Your task to perform on an android device: Open Yahoo.com Image 0: 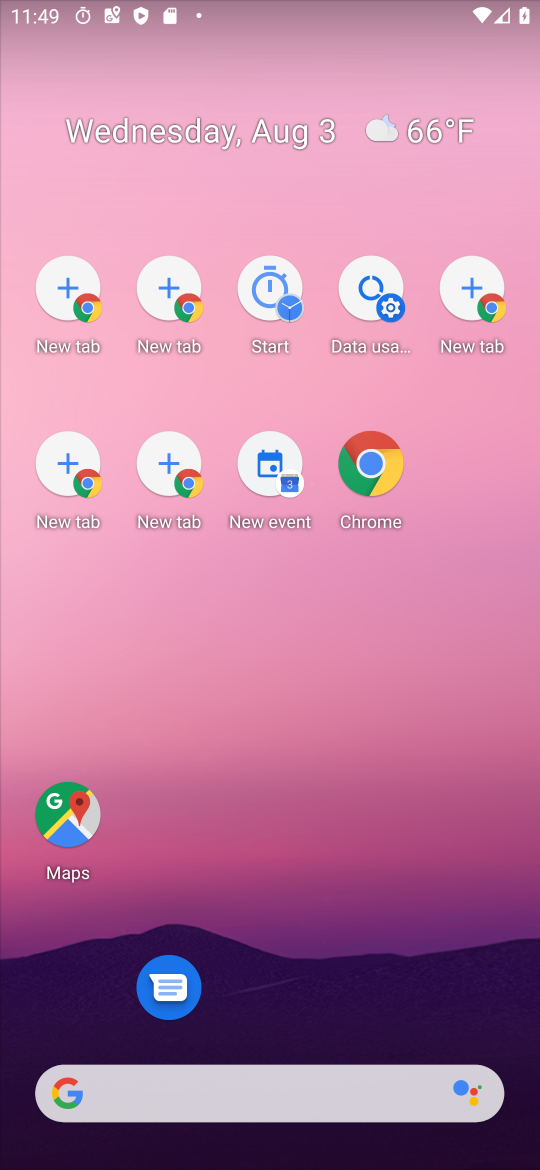
Step 0: drag from (288, 919) to (258, 119)
Your task to perform on an android device: Open Yahoo.com Image 1: 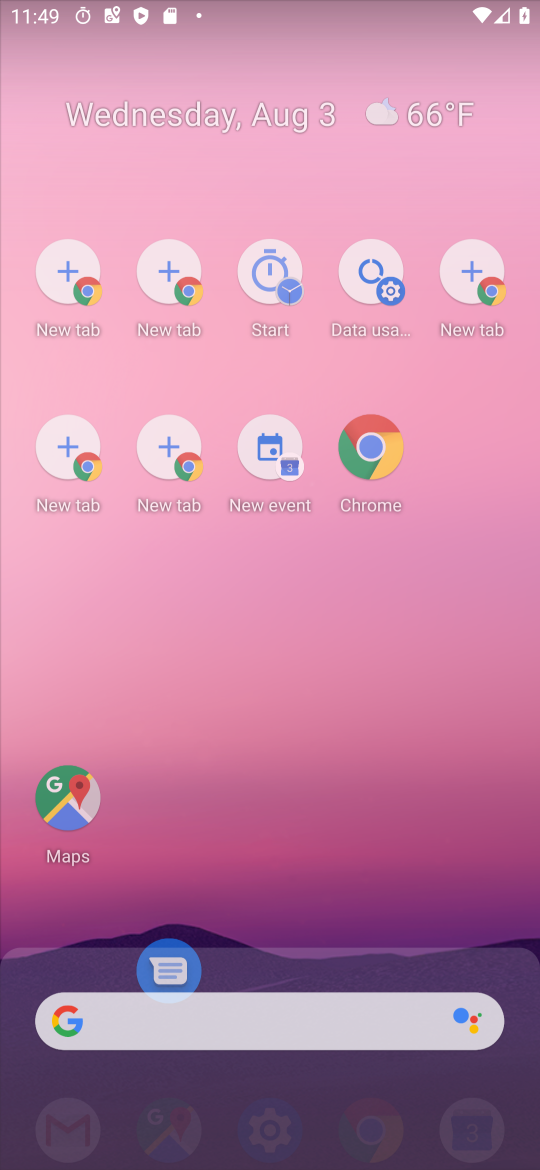
Step 1: click (329, 204)
Your task to perform on an android device: Open Yahoo.com Image 2: 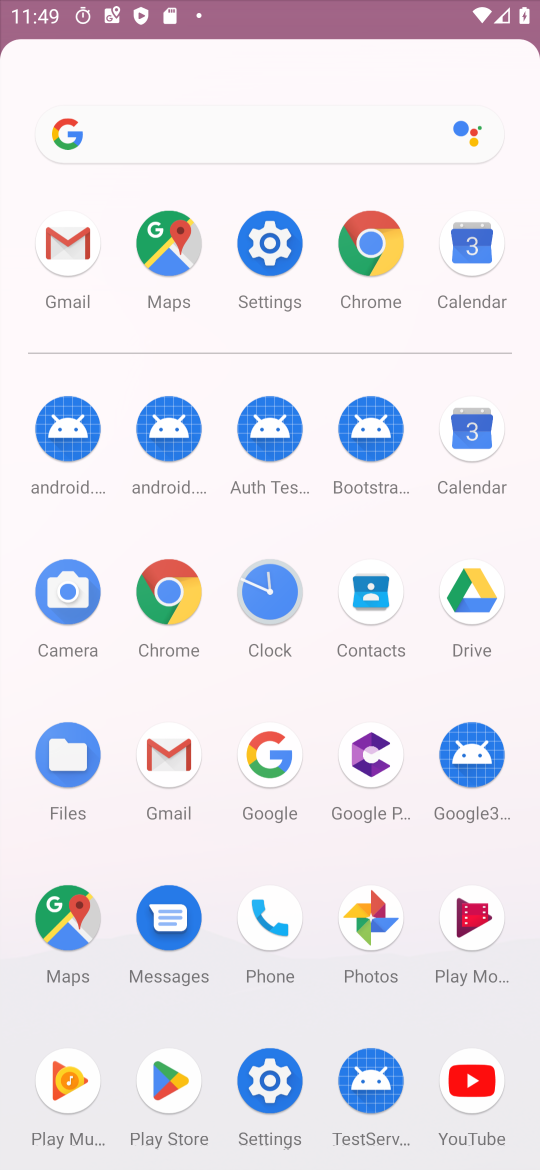
Step 2: drag from (176, 771) to (149, 23)
Your task to perform on an android device: Open Yahoo.com Image 3: 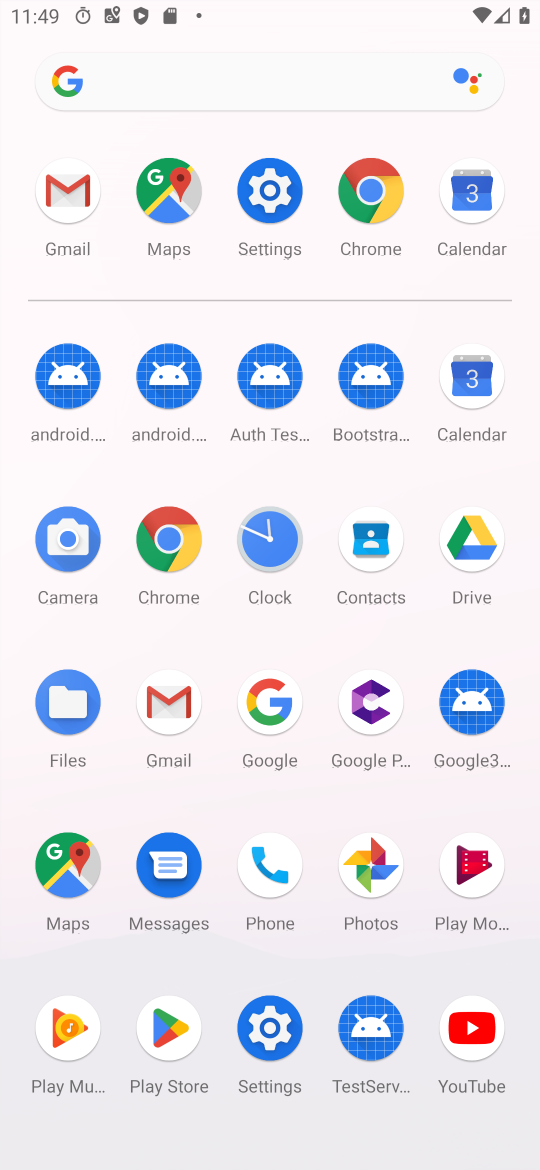
Step 3: click (183, 437)
Your task to perform on an android device: Open Yahoo.com Image 4: 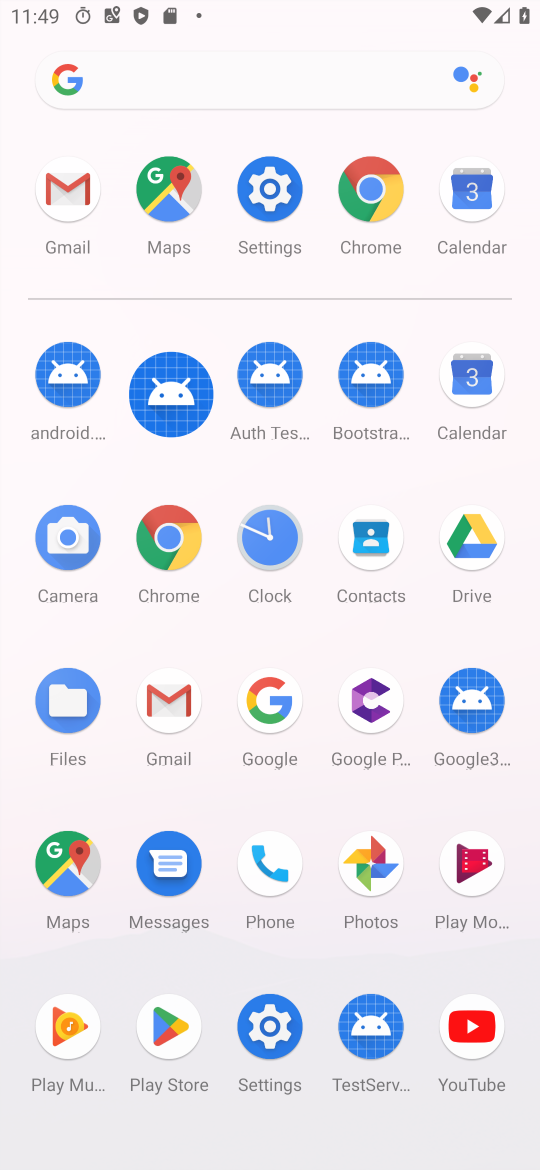
Step 4: click (384, 198)
Your task to perform on an android device: Open Yahoo.com Image 5: 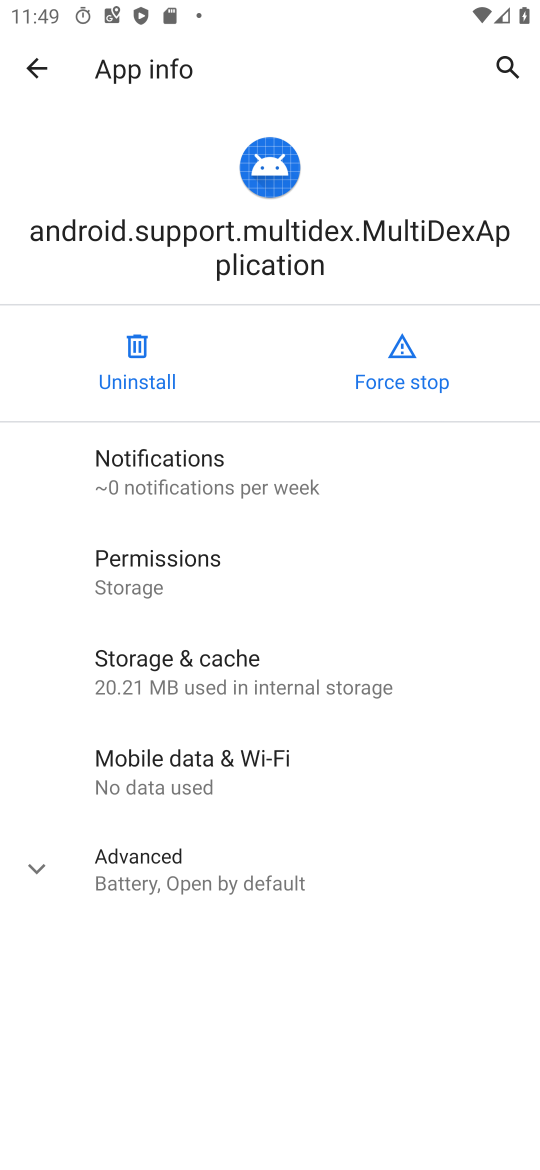
Step 5: click (383, 196)
Your task to perform on an android device: Open Yahoo.com Image 6: 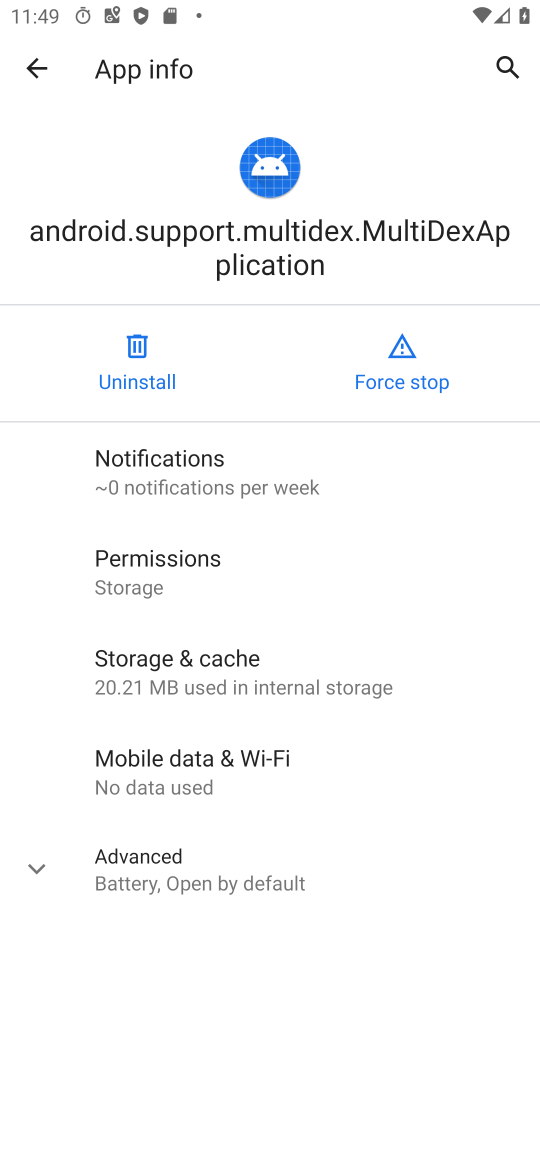
Step 6: click (383, 196)
Your task to perform on an android device: Open Yahoo.com Image 7: 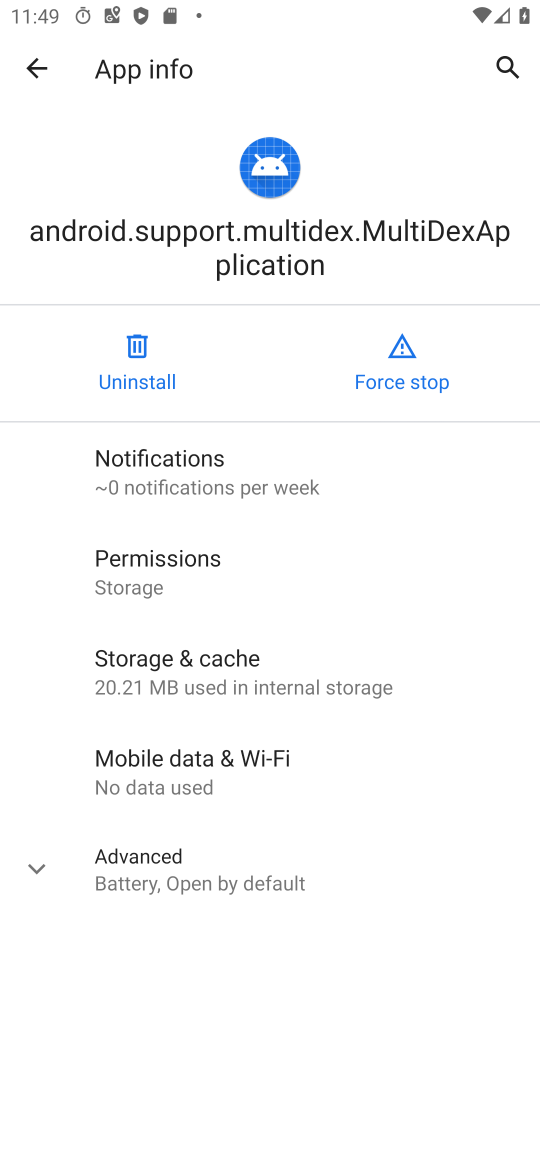
Step 7: click (28, 63)
Your task to perform on an android device: Open Yahoo.com Image 8: 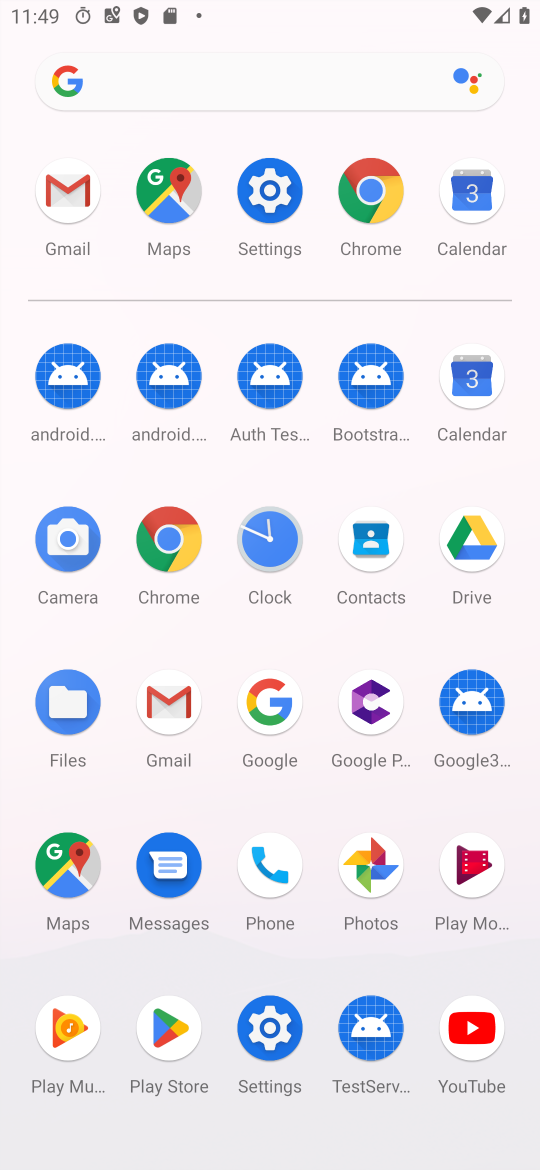
Step 8: click (352, 193)
Your task to perform on an android device: Open Yahoo.com Image 9: 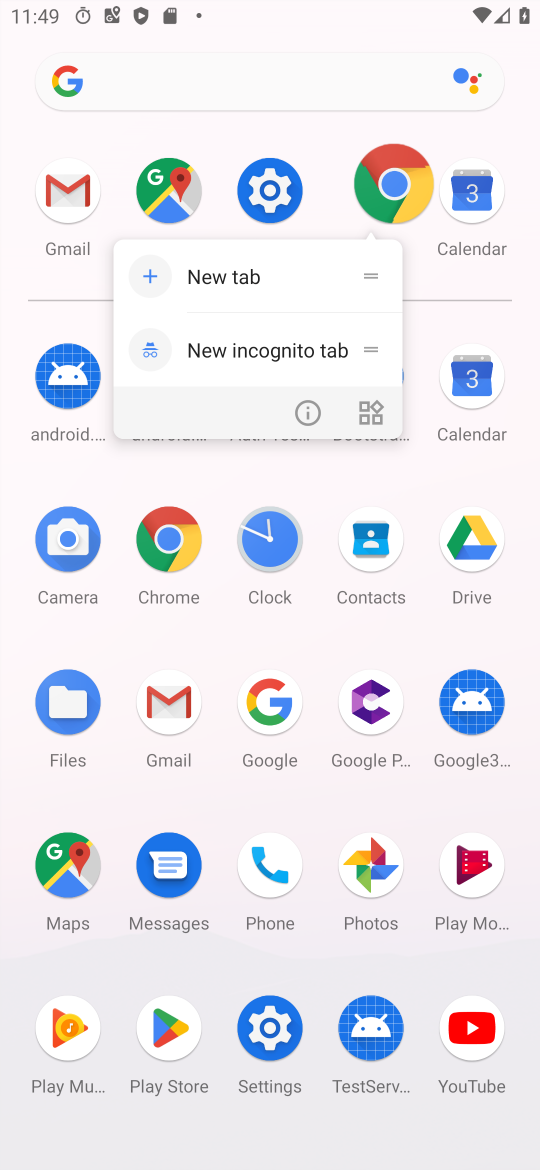
Step 9: click (368, 191)
Your task to perform on an android device: Open Yahoo.com Image 10: 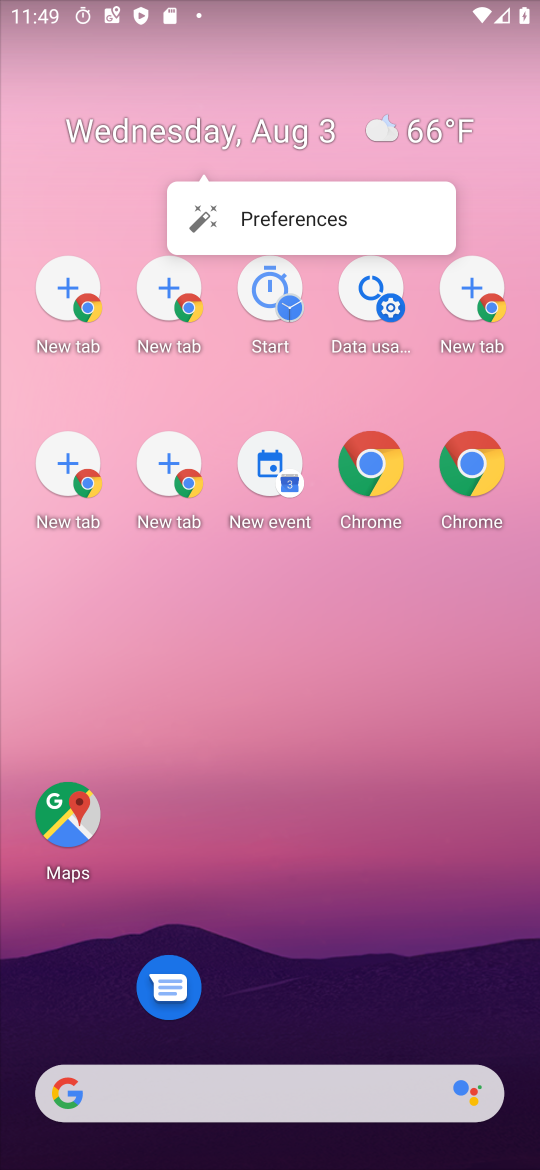
Step 10: drag from (417, 746) to (244, 12)
Your task to perform on an android device: Open Yahoo.com Image 11: 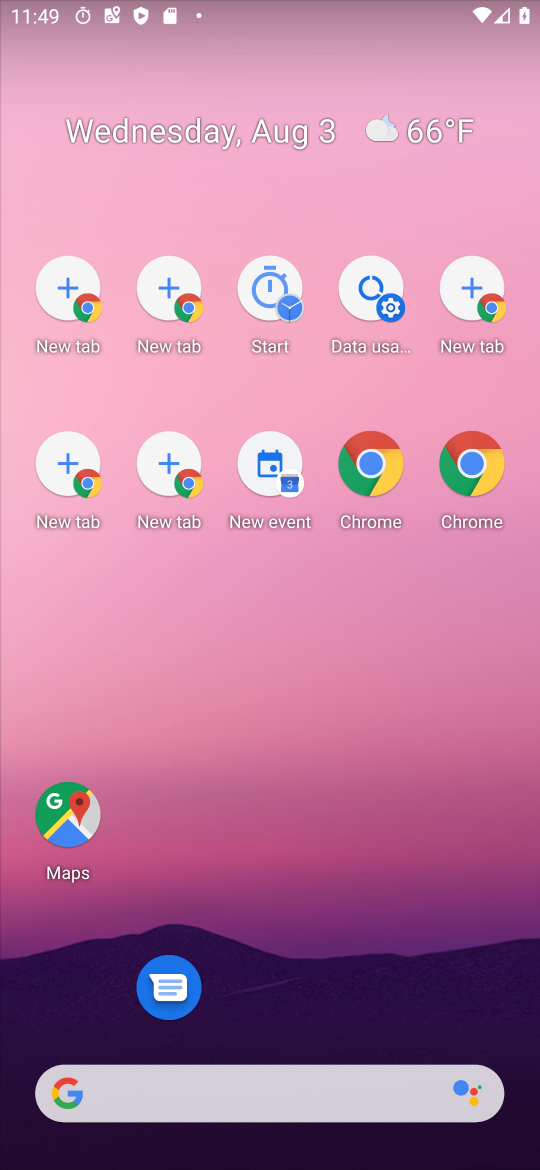
Step 11: drag from (367, 830) to (338, 192)
Your task to perform on an android device: Open Yahoo.com Image 12: 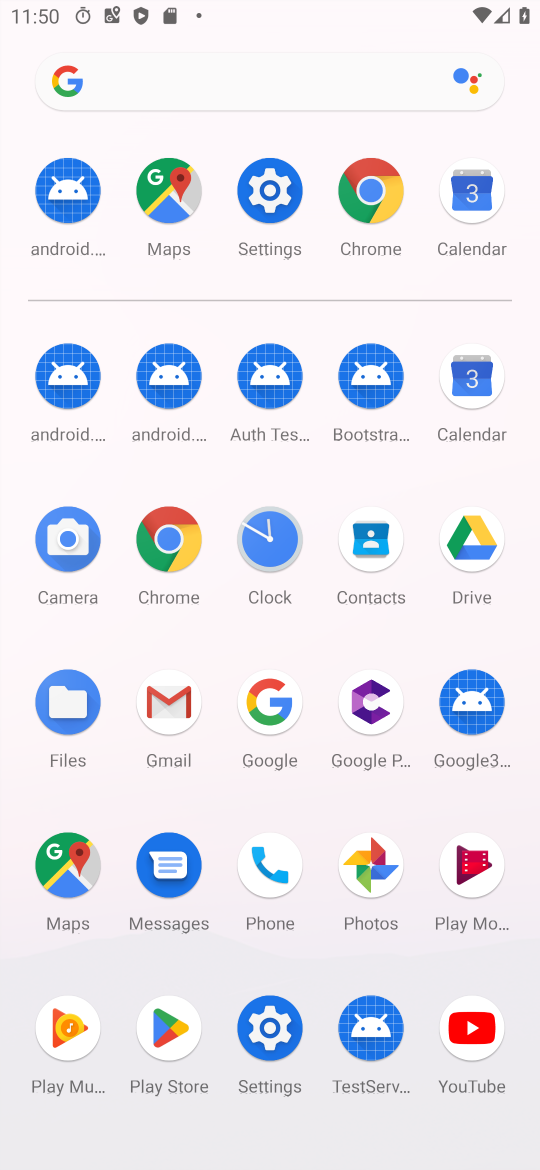
Step 12: click (359, 188)
Your task to perform on an android device: Open Yahoo.com Image 13: 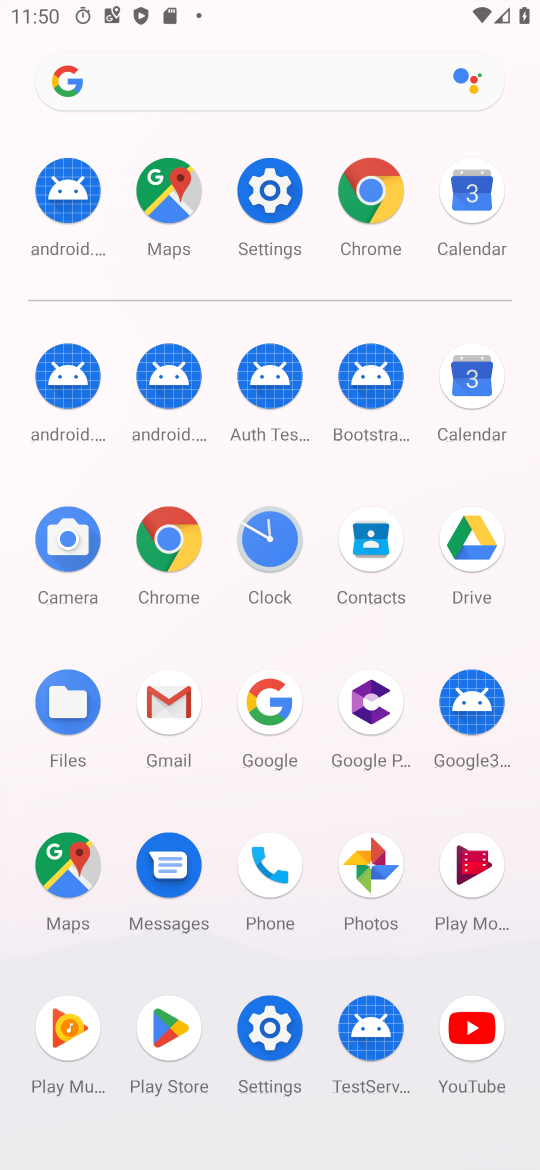
Step 13: click (362, 188)
Your task to perform on an android device: Open Yahoo.com Image 14: 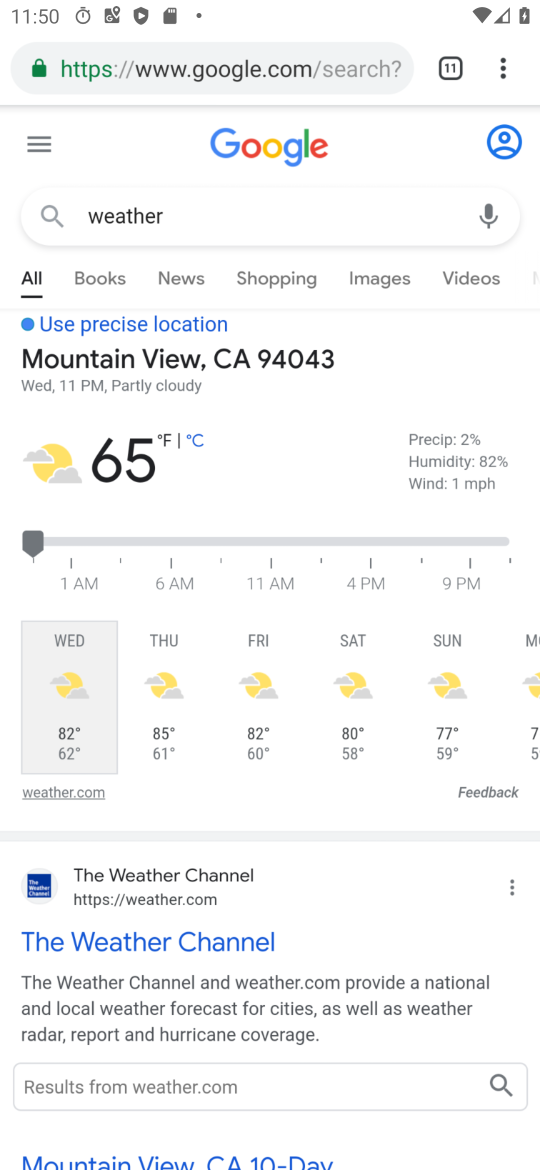
Step 14: click (364, 188)
Your task to perform on an android device: Open Yahoo.com Image 15: 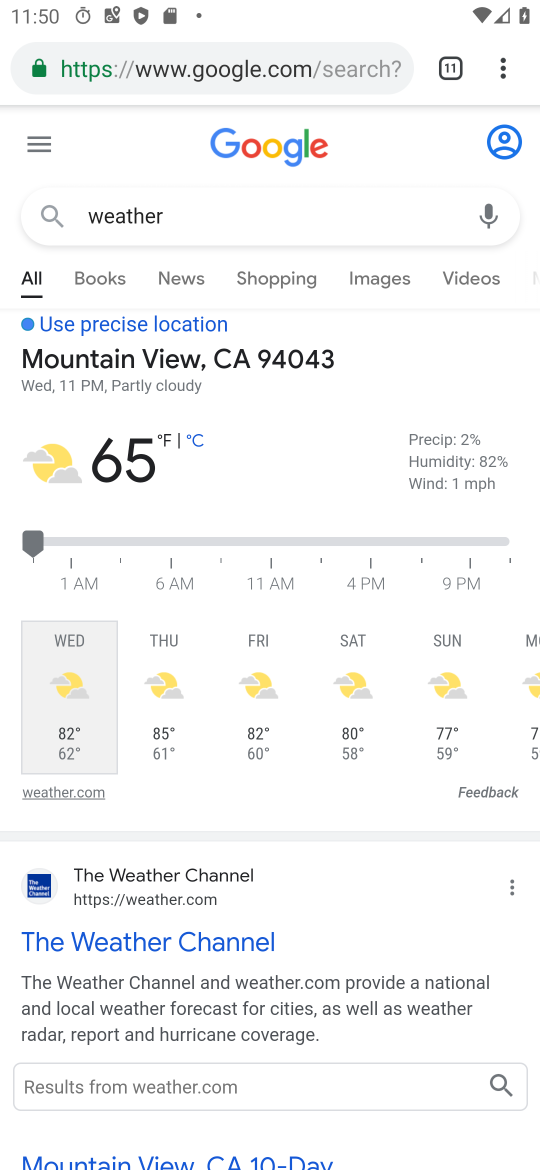
Step 15: click (502, 67)
Your task to perform on an android device: Open Yahoo.com Image 16: 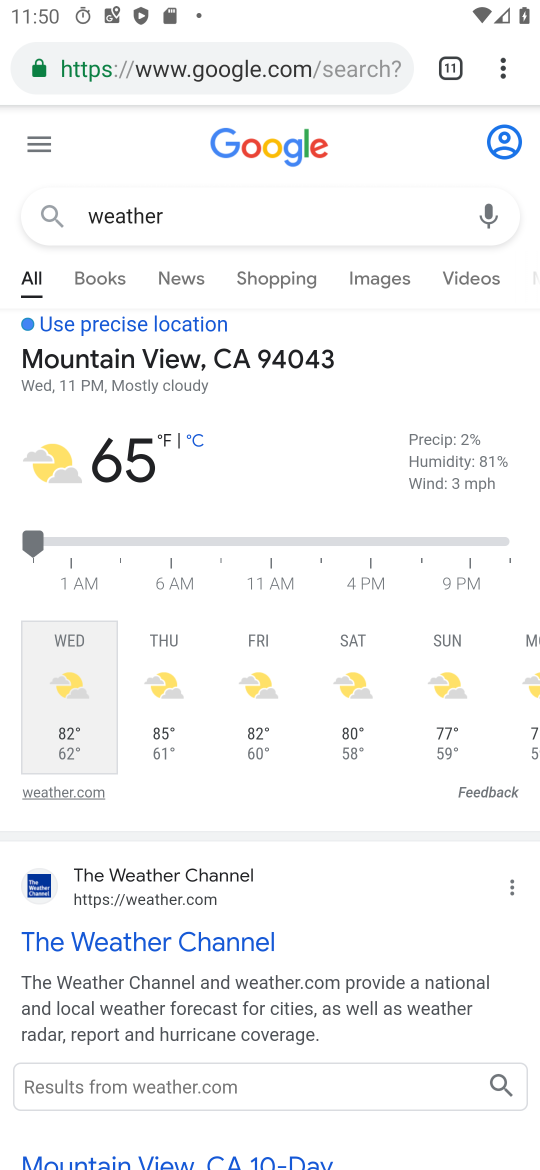
Step 16: click (503, 62)
Your task to perform on an android device: Open Yahoo.com Image 17: 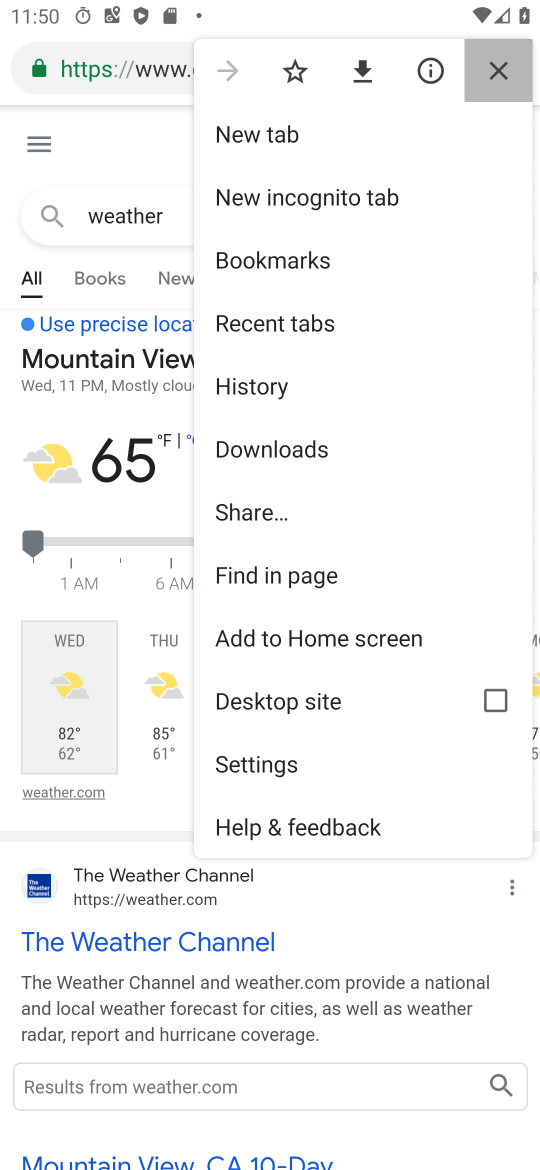
Step 17: click (503, 62)
Your task to perform on an android device: Open Yahoo.com Image 18: 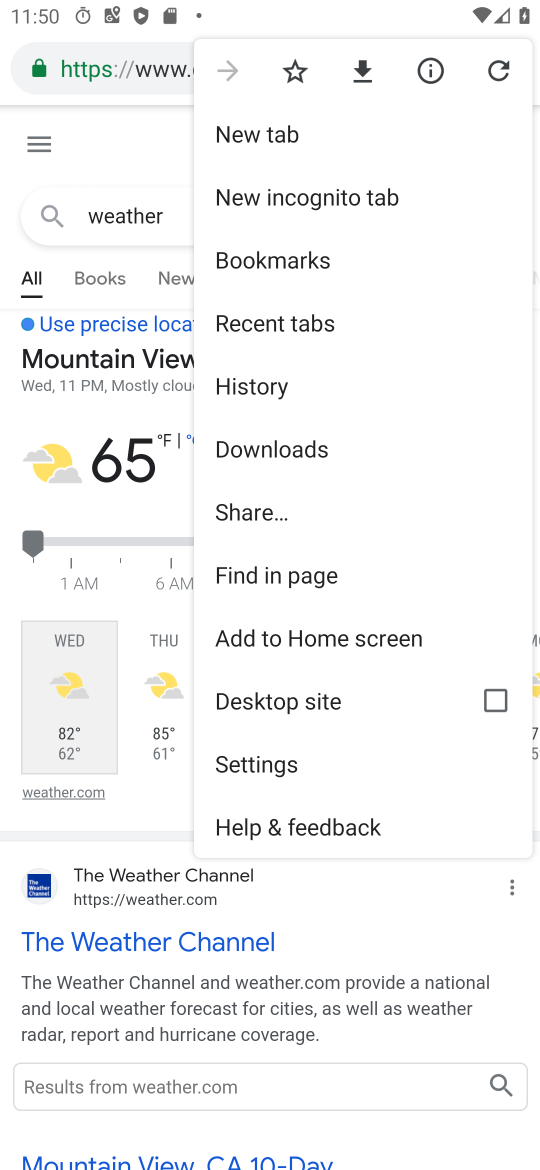
Step 18: click (254, 141)
Your task to perform on an android device: Open Yahoo.com Image 19: 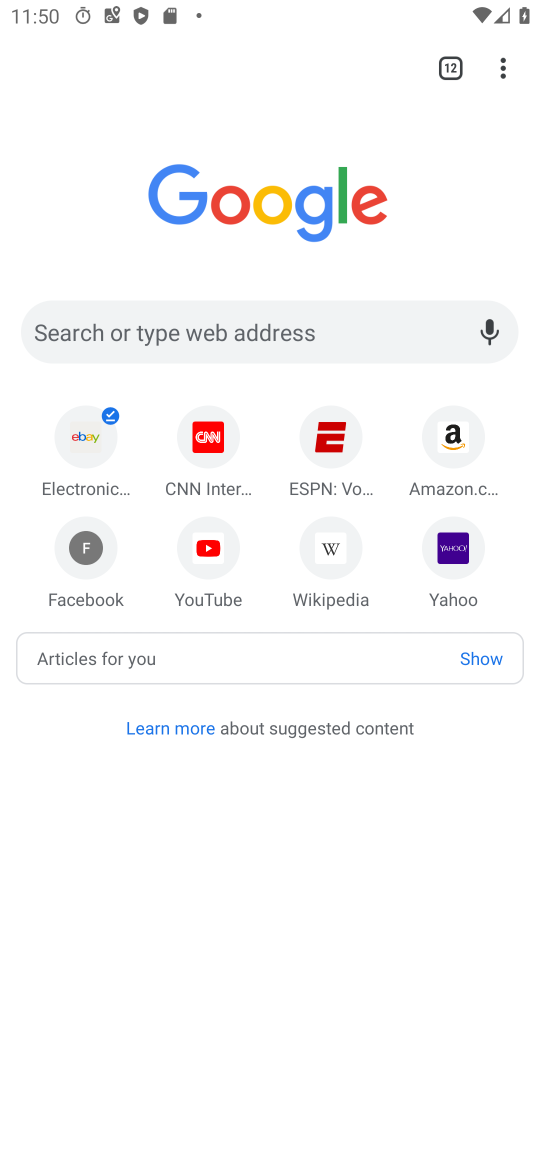
Step 19: click (443, 558)
Your task to perform on an android device: Open Yahoo.com Image 20: 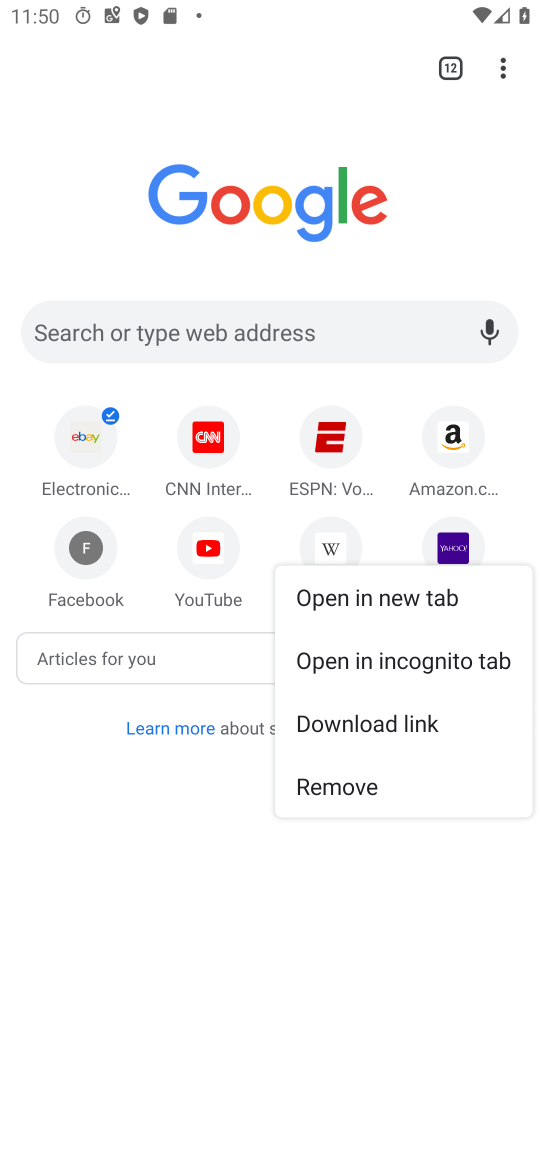
Step 20: click (450, 560)
Your task to perform on an android device: Open Yahoo.com Image 21: 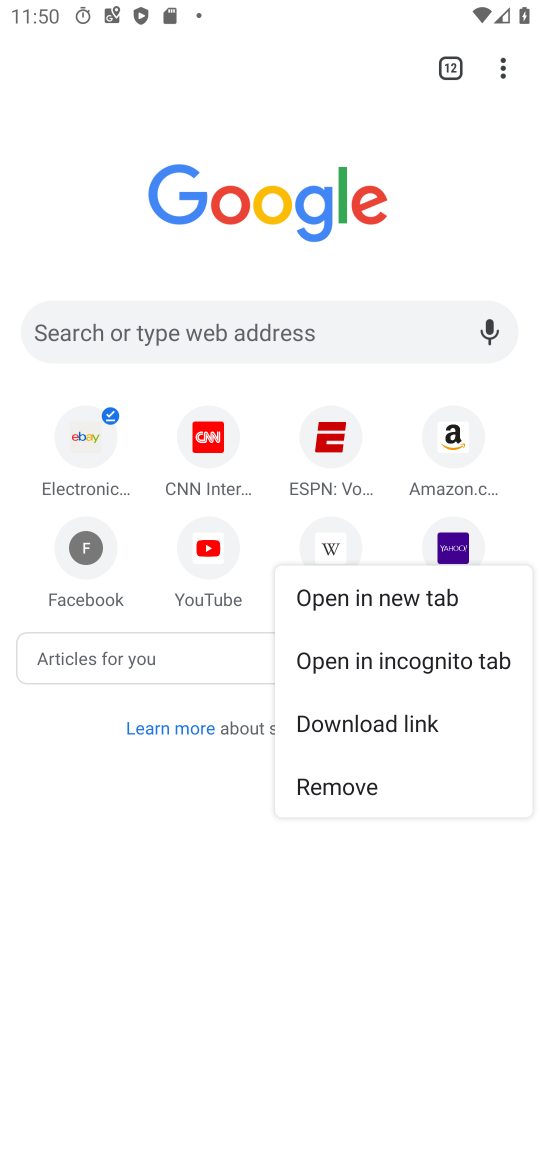
Step 21: click (400, 594)
Your task to perform on an android device: Open Yahoo.com Image 22: 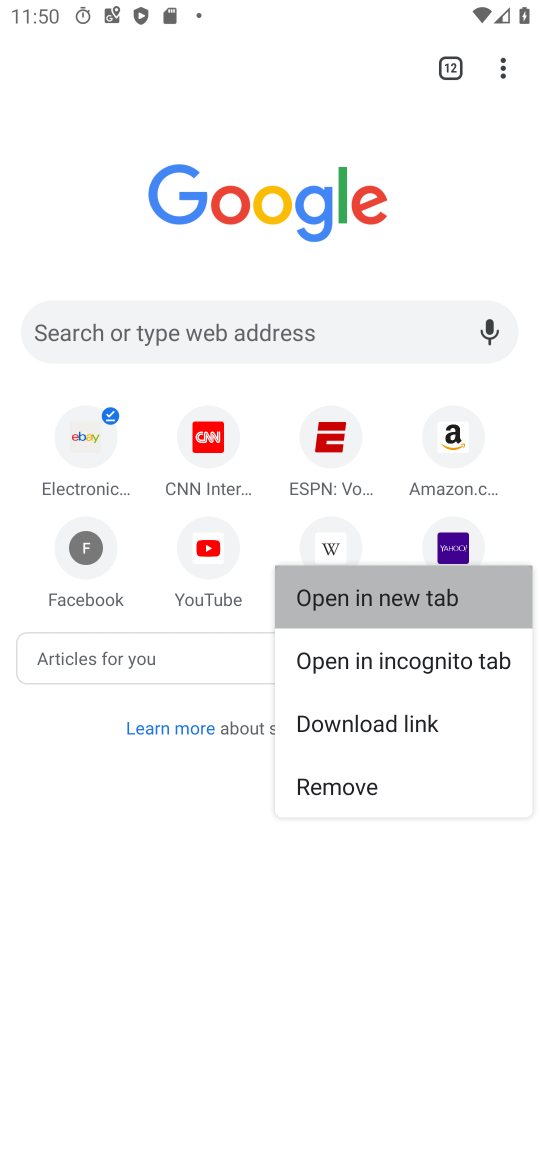
Step 22: click (399, 596)
Your task to perform on an android device: Open Yahoo.com Image 23: 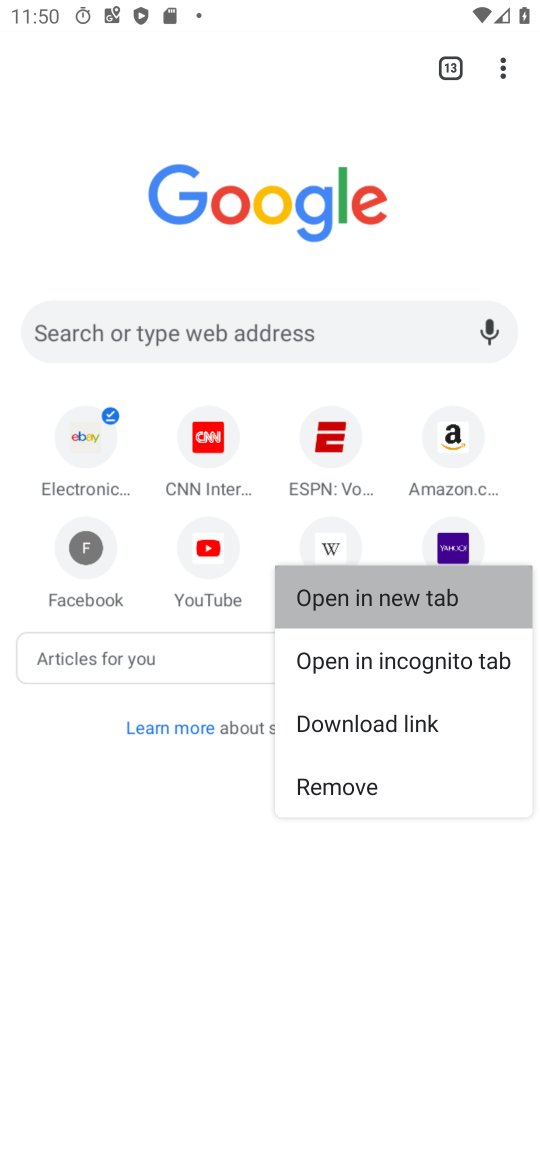
Step 23: click (400, 597)
Your task to perform on an android device: Open Yahoo.com Image 24: 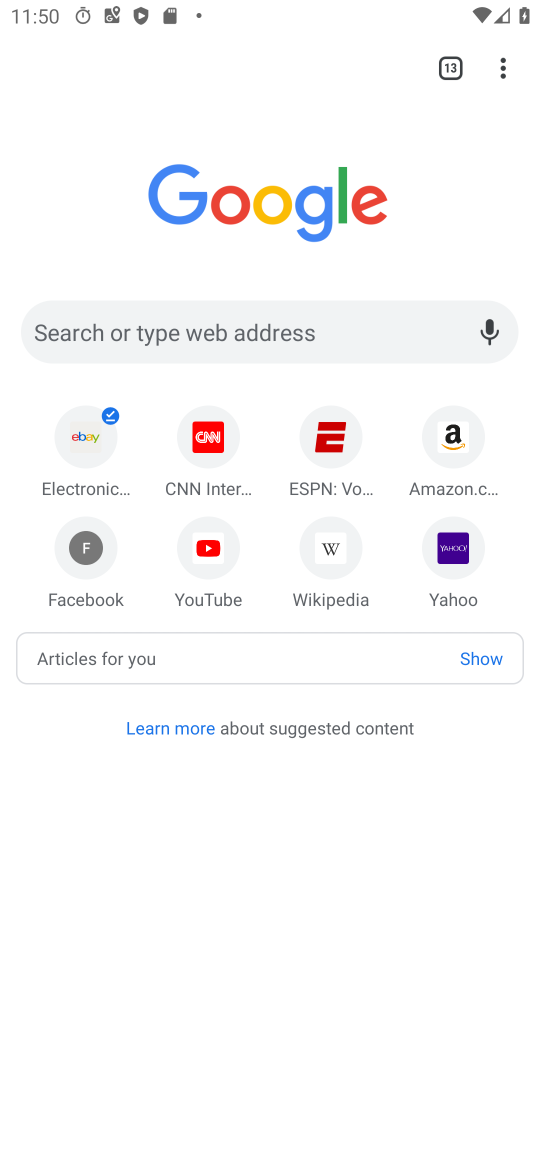
Step 24: click (444, 550)
Your task to perform on an android device: Open Yahoo.com Image 25: 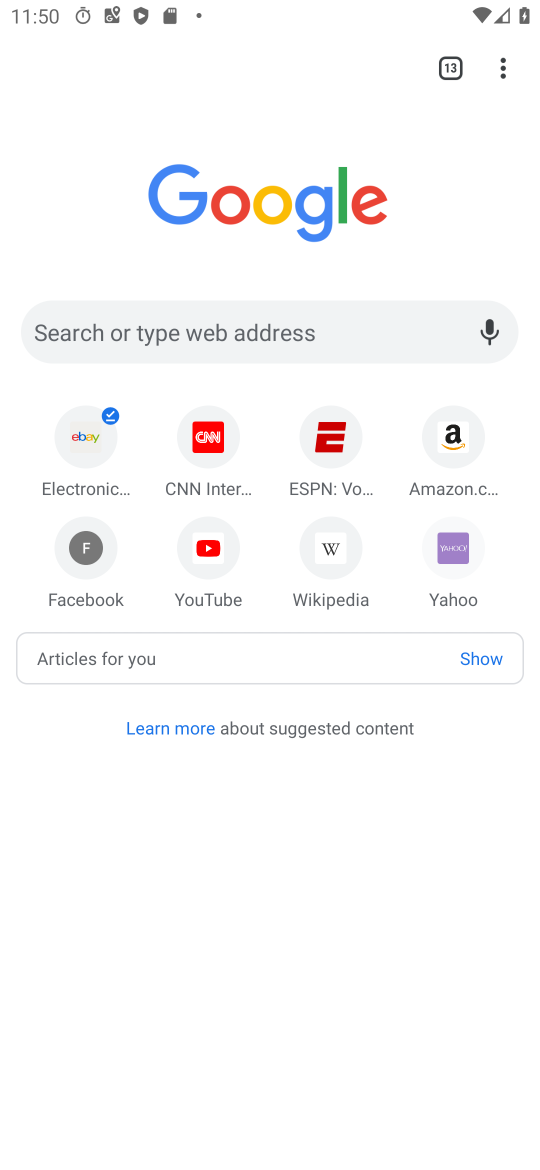
Step 25: click (444, 550)
Your task to perform on an android device: Open Yahoo.com Image 26: 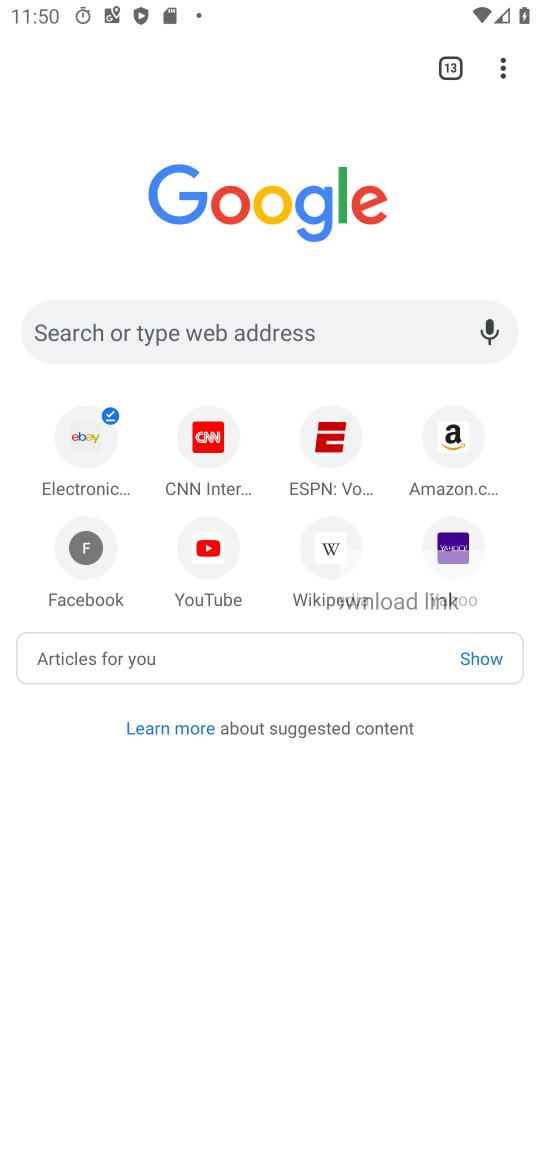
Step 26: click (447, 551)
Your task to perform on an android device: Open Yahoo.com Image 27: 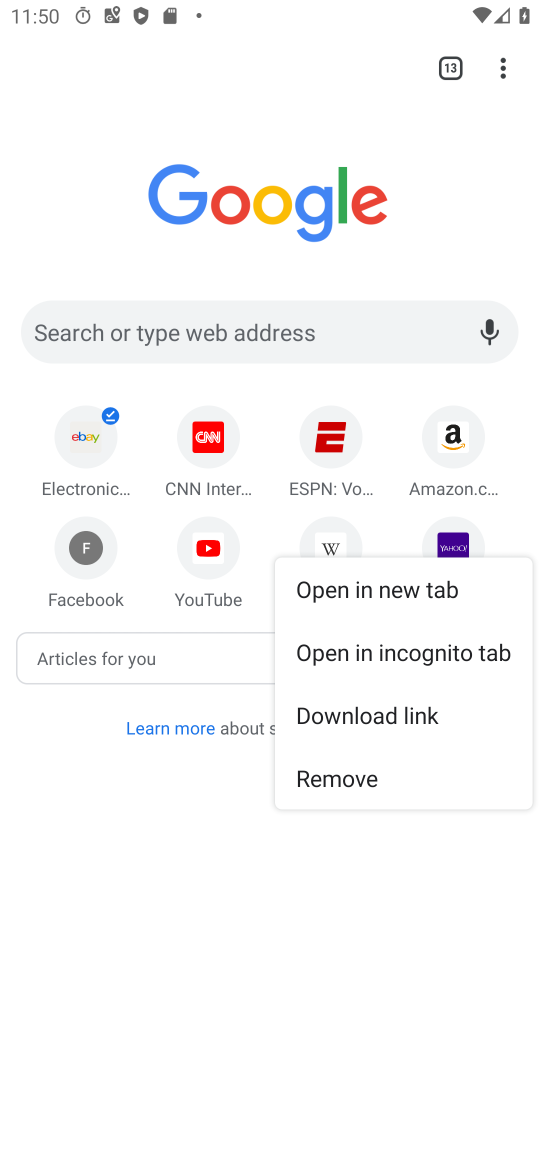
Step 27: click (450, 554)
Your task to perform on an android device: Open Yahoo.com Image 28: 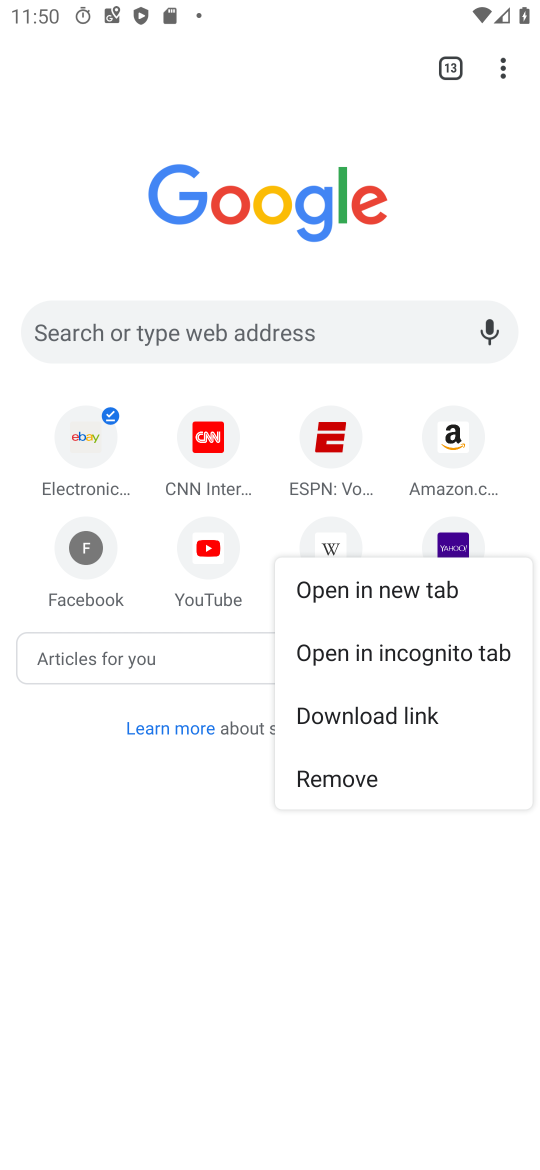
Step 28: click (403, 589)
Your task to perform on an android device: Open Yahoo.com Image 29: 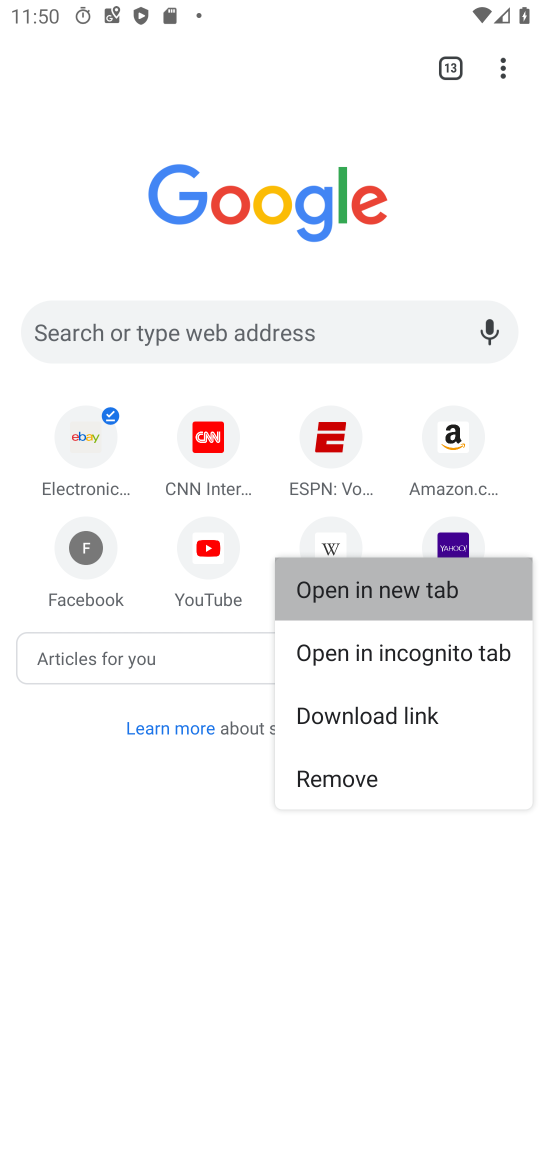
Step 29: click (365, 588)
Your task to perform on an android device: Open Yahoo.com Image 30: 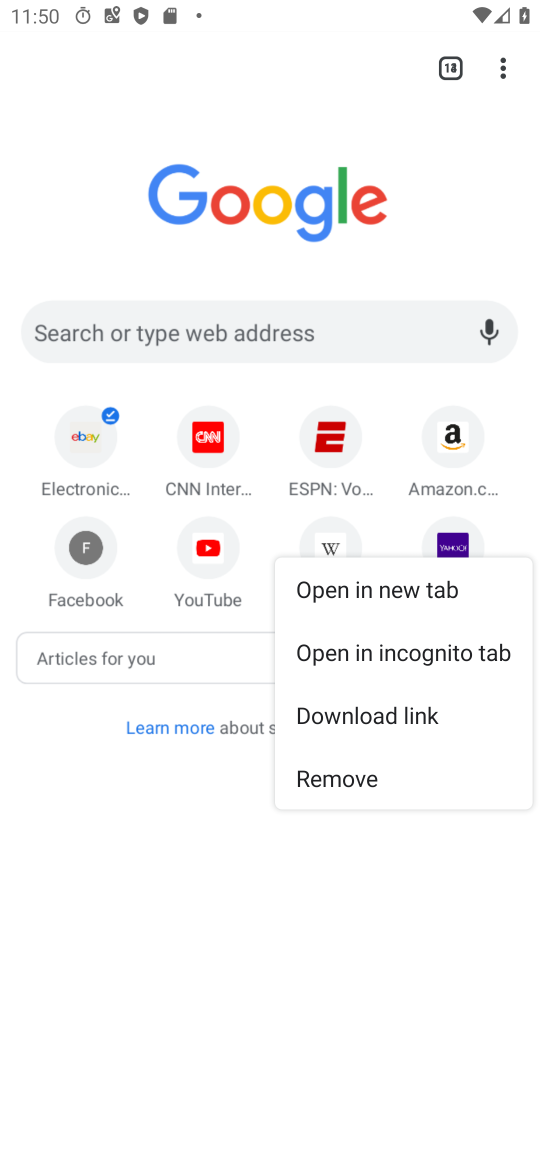
Step 30: click (365, 588)
Your task to perform on an android device: Open Yahoo.com Image 31: 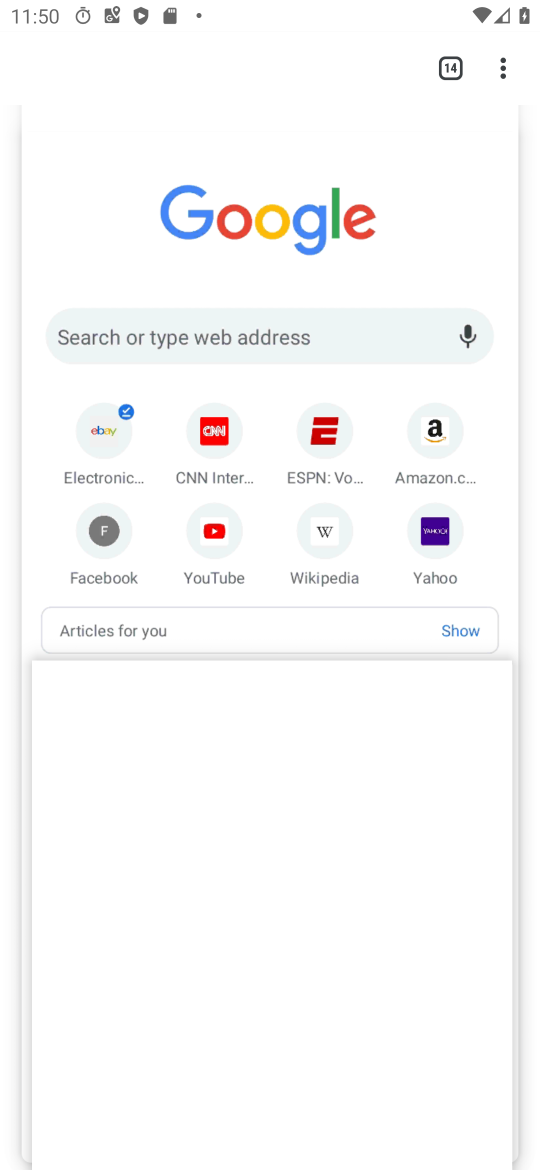
Step 31: click (371, 585)
Your task to perform on an android device: Open Yahoo.com Image 32: 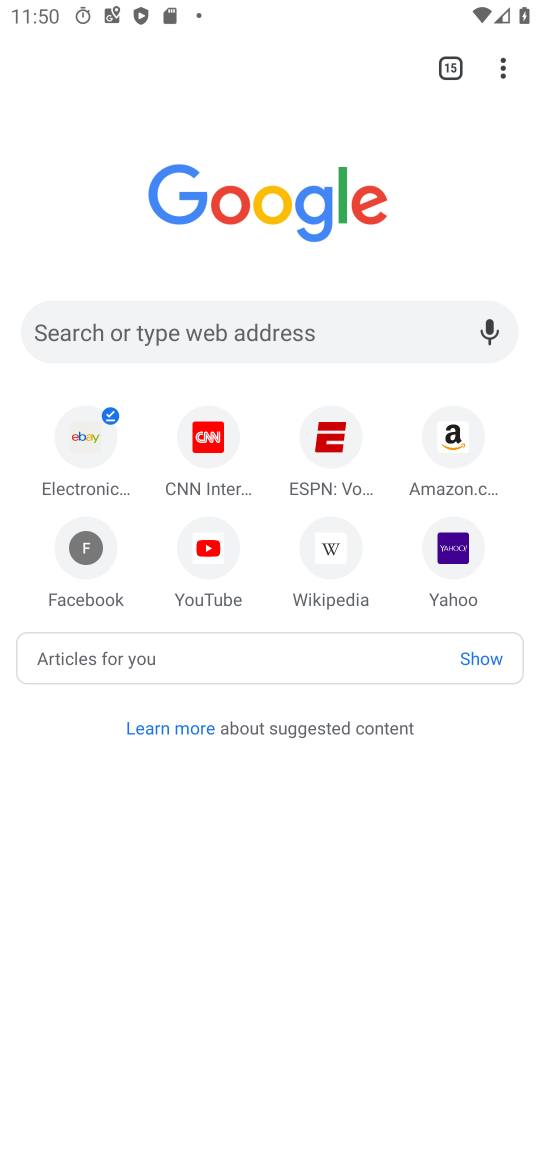
Step 32: click (372, 585)
Your task to perform on an android device: Open Yahoo.com Image 33: 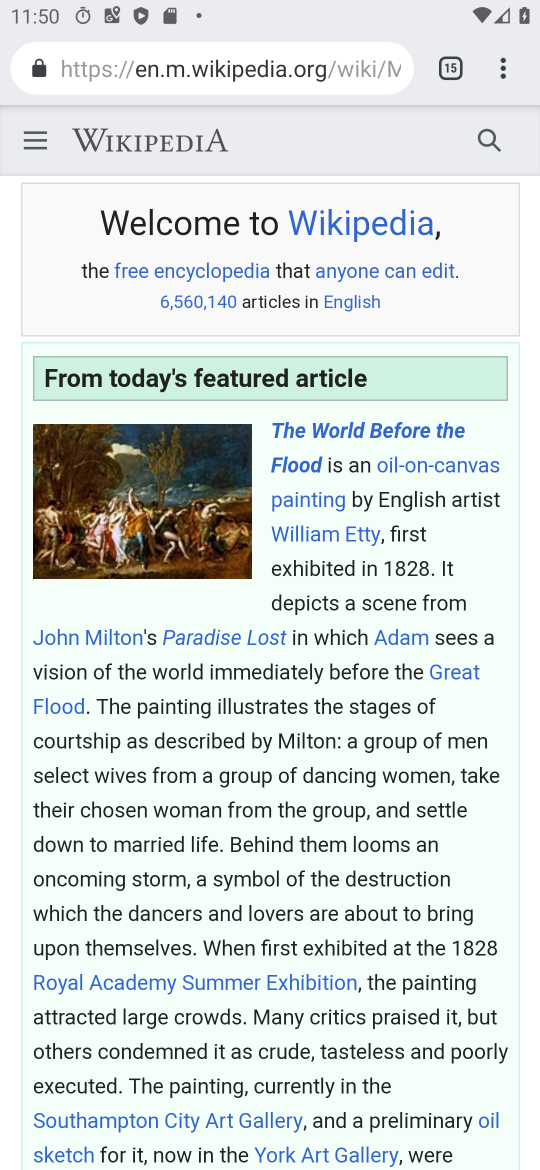
Step 33: drag from (491, 68) to (244, 145)
Your task to perform on an android device: Open Yahoo.com Image 34: 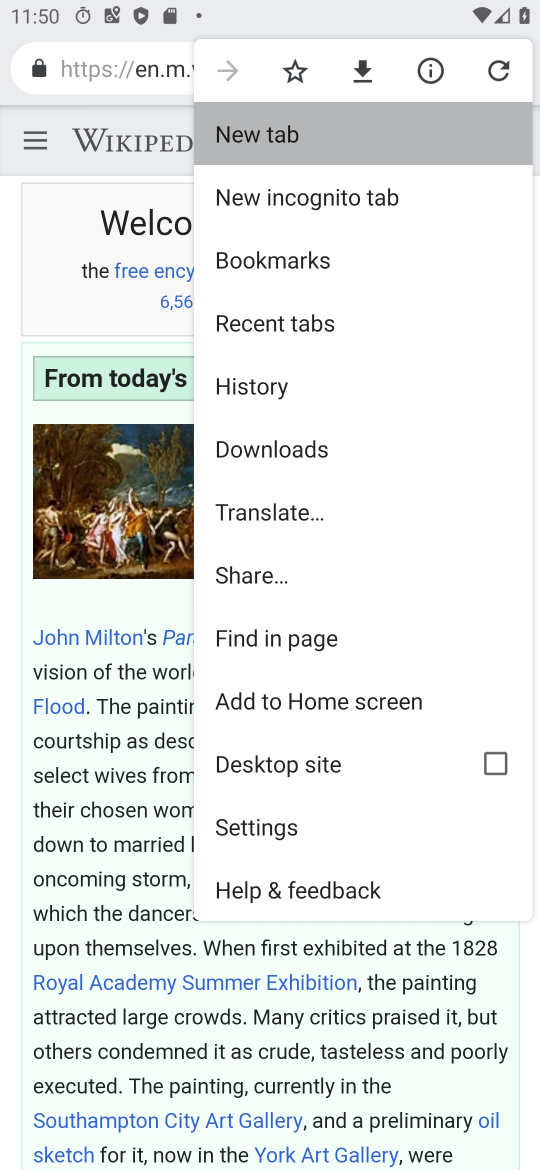
Step 34: click (245, 146)
Your task to perform on an android device: Open Yahoo.com Image 35: 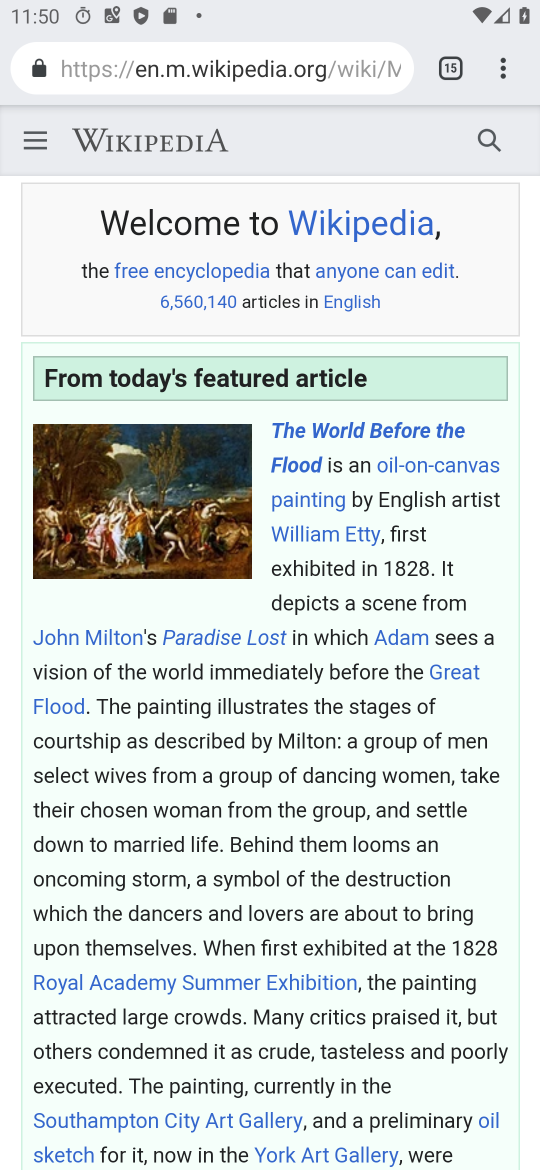
Step 35: click (248, 146)
Your task to perform on an android device: Open Yahoo.com Image 36: 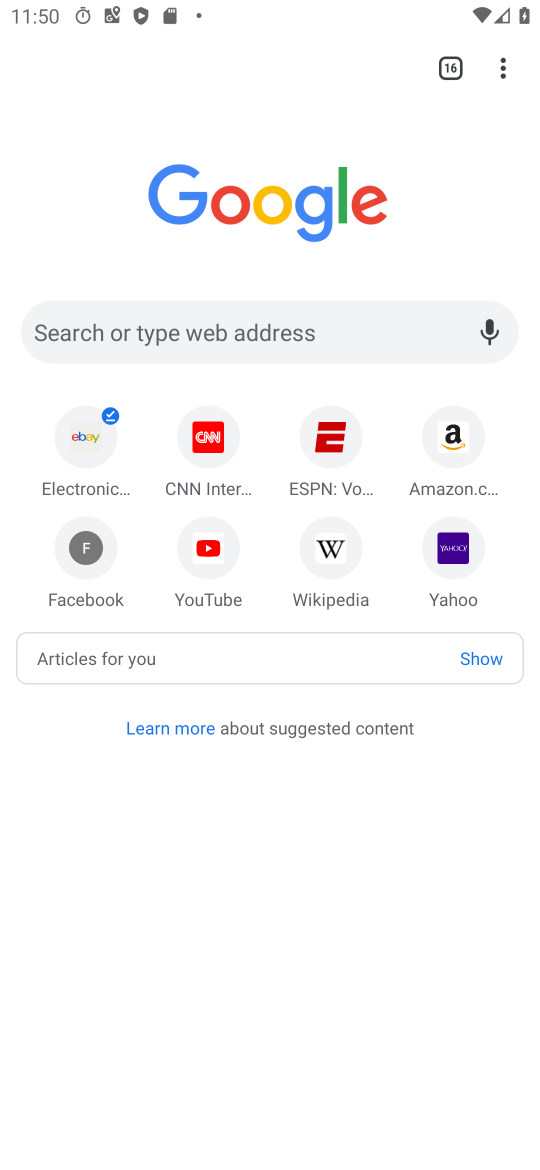
Step 36: click (455, 553)
Your task to perform on an android device: Open Yahoo.com Image 37: 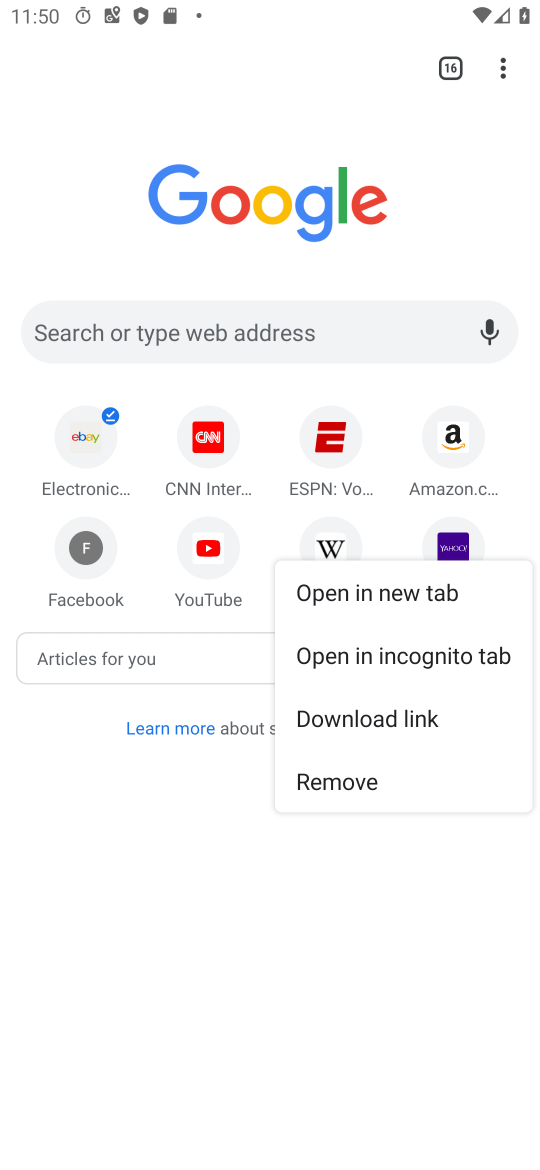
Step 37: click (455, 553)
Your task to perform on an android device: Open Yahoo.com Image 38: 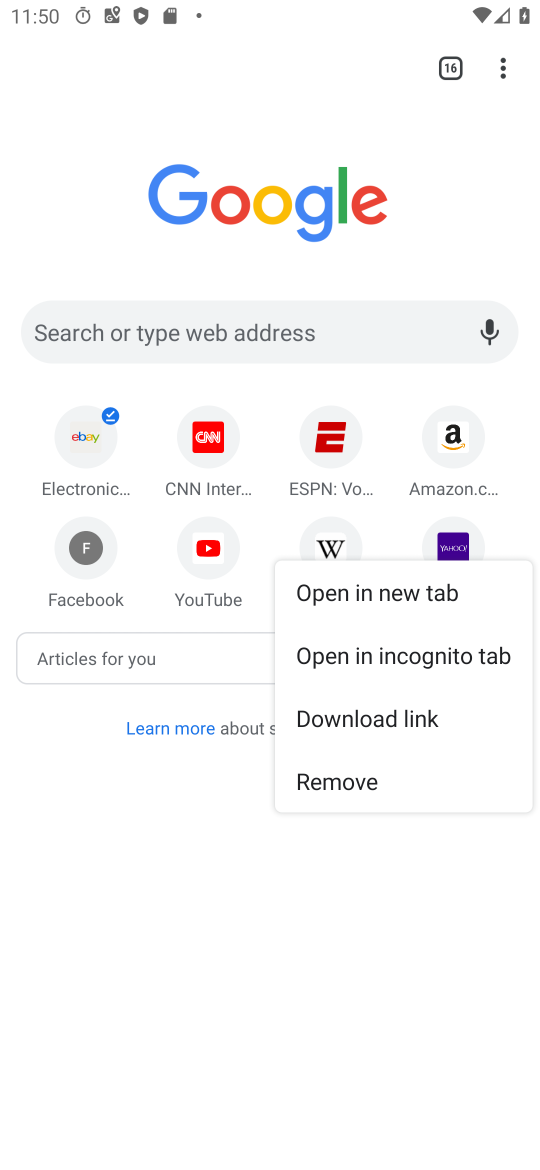
Step 38: click (401, 600)
Your task to perform on an android device: Open Yahoo.com Image 39: 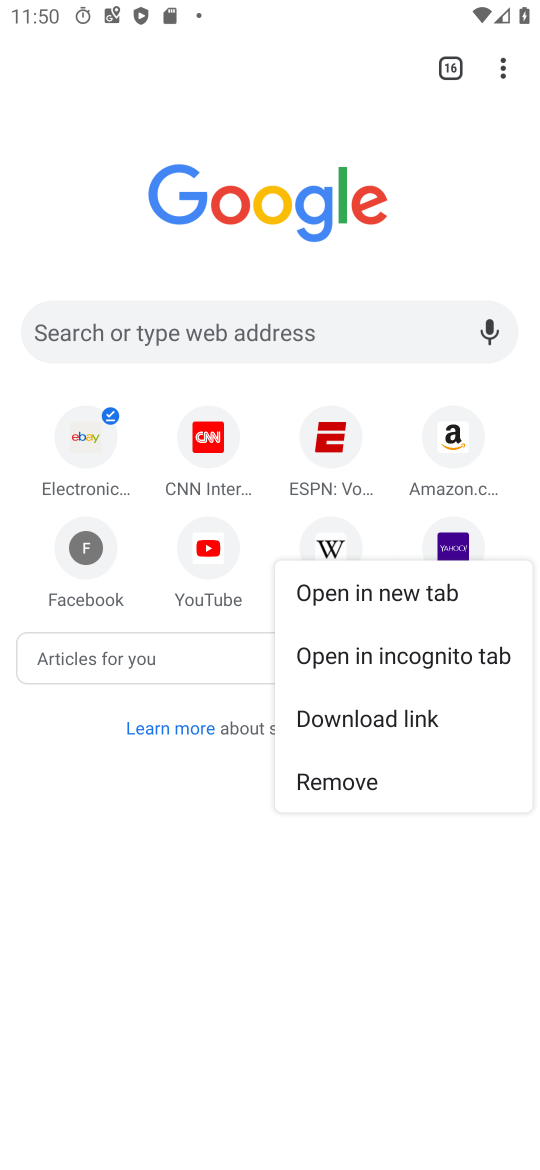
Step 39: click (403, 602)
Your task to perform on an android device: Open Yahoo.com Image 40: 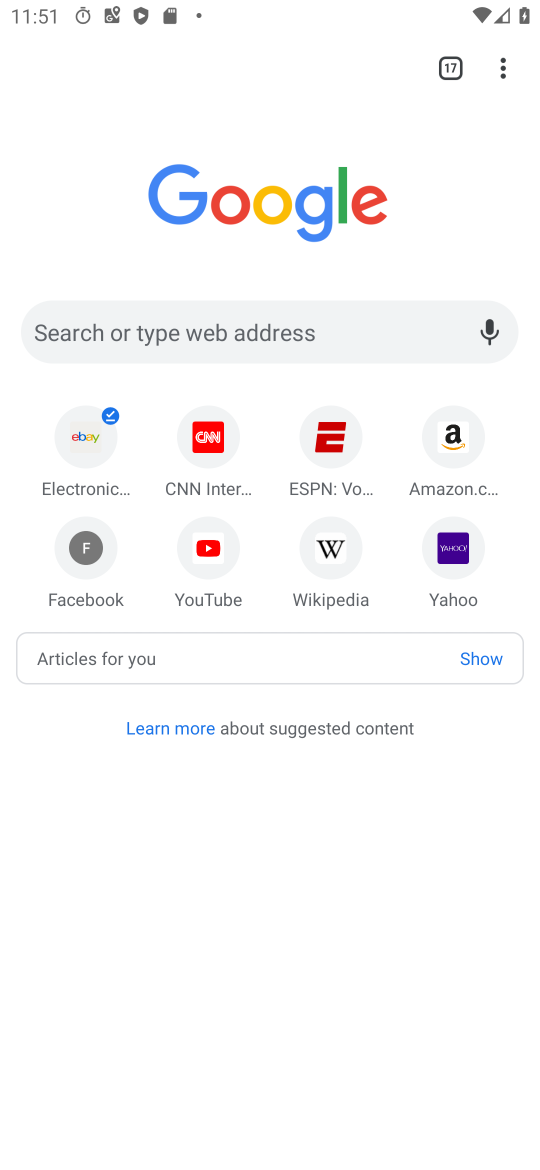
Step 40: task complete